Your task to perform on an android device: Open Reddit.com Image 0: 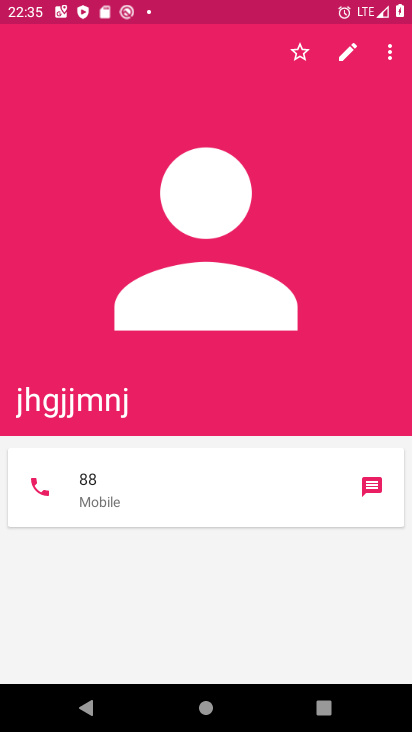
Step 0: press home button
Your task to perform on an android device: Open Reddit.com Image 1: 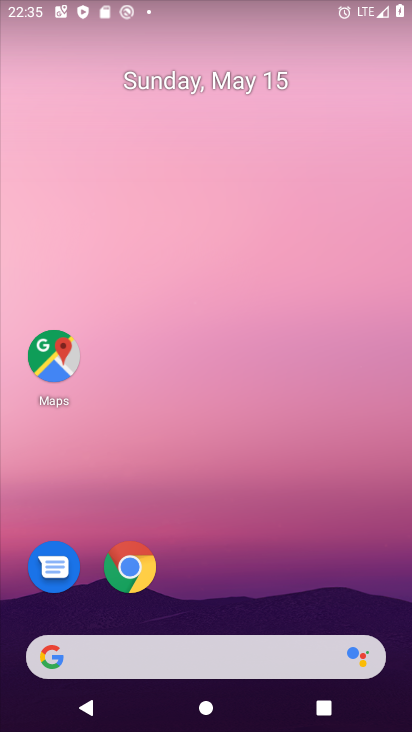
Step 1: click (223, 651)
Your task to perform on an android device: Open Reddit.com Image 2: 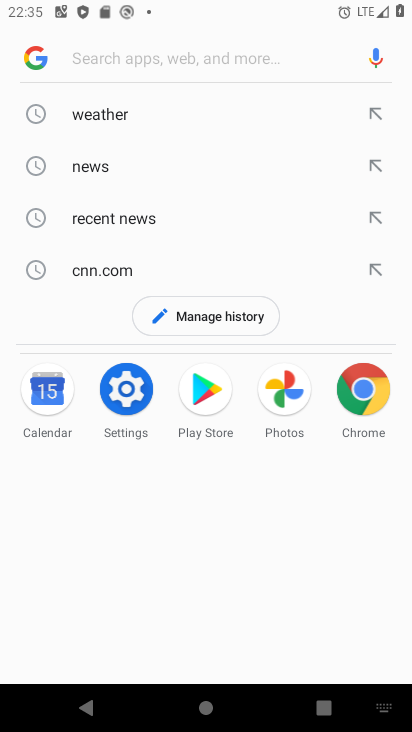
Step 2: type "reddit.com"
Your task to perform on an android device: Open Reddit.com Image 3: 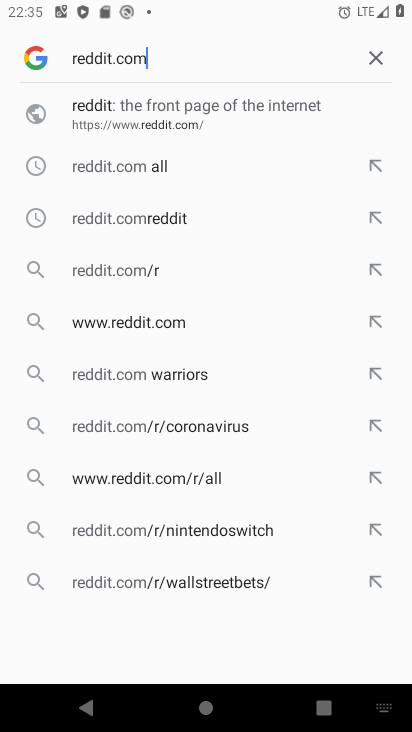
Step 3: click (229, 128)
Your task to perform on an android device: Open Reddit.com Image 4: 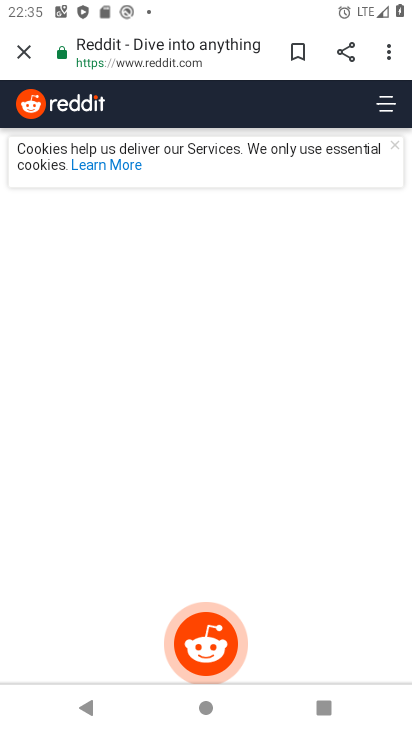
Step 4: task complete